Your task to perform on an android device: Search for Mexican restaurants on Maps Image 0: 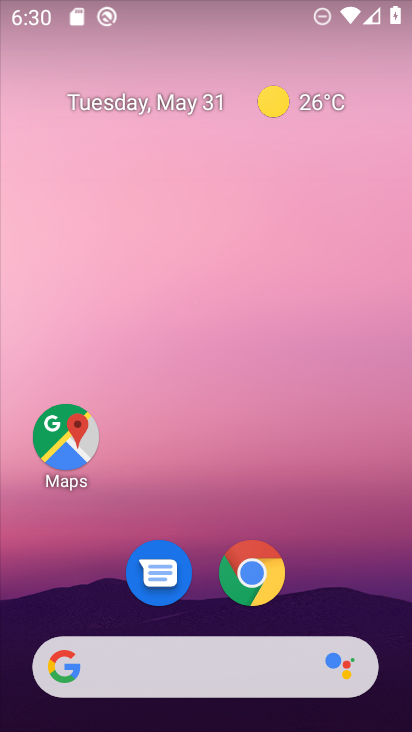
Step 0: drag from (393, 625) to (261, 31)
Your task to perform on an android device: Search for Mexican restaurants on Maps Image 1: 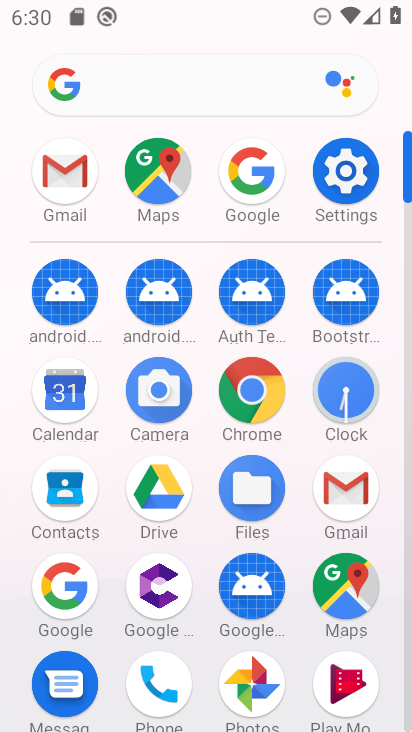
Step 1: click (347, 569)
Your task to perform on an android device: Search for Mexican restaurants on Maps Image 2: 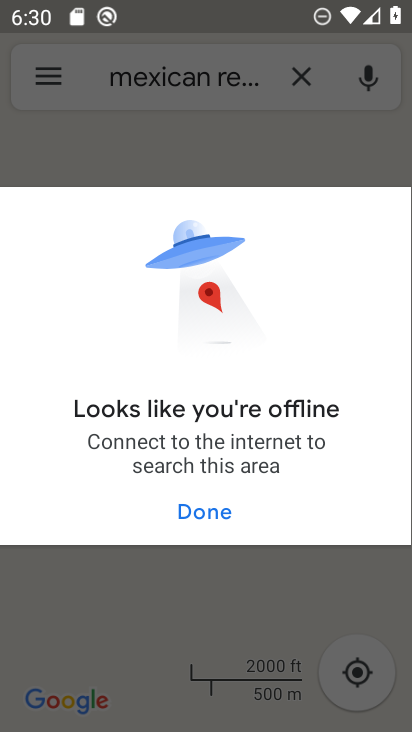
Step 2: press back button
Your task to perform on an android device: Search for Mexican restaurants on Maps Image 3: 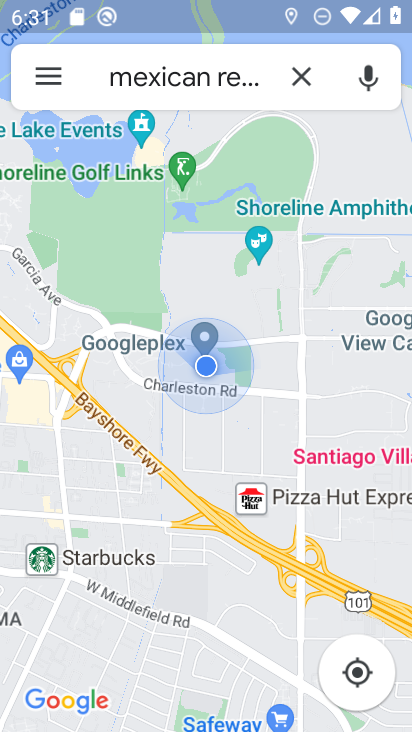
Step 3: click (302, 75)
Your task to perform on an android device: Search for Mexican restaurants on Maps Image 4: 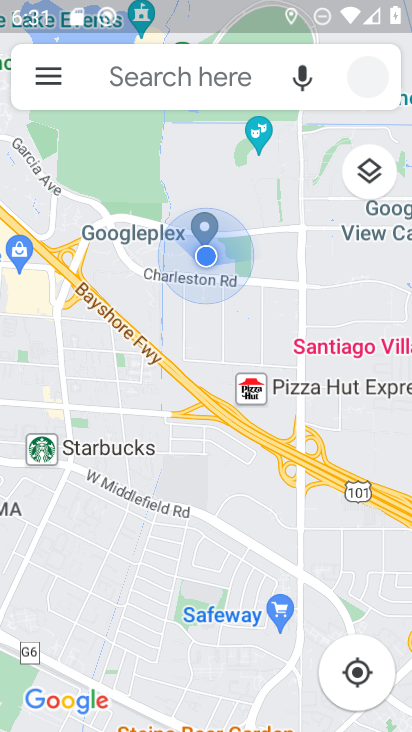
Step 4: click (196, 68)
Your task to perform on an android device: Search for Mexican restaurants on Maps Image 5: 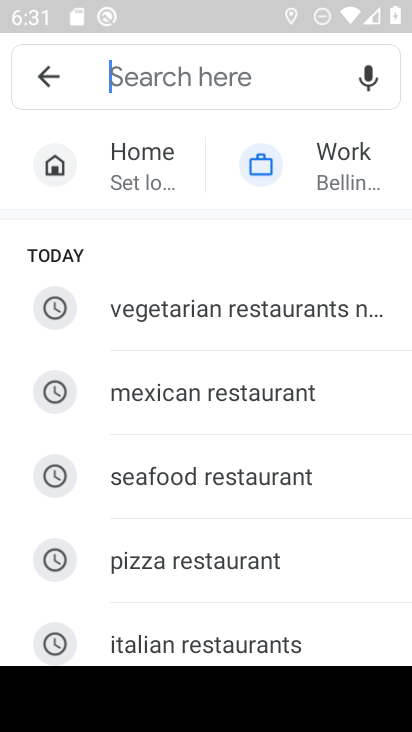
Step 5: click (211, 416)
Your task to perform on an android device: Search for Mexican restaurants on Maps Image 6: 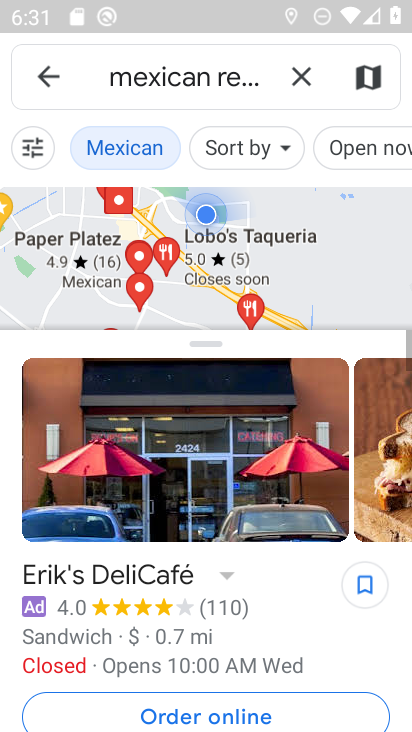
Step 6: task complete